Your task to perform on an android device: Open Youtube and go to "Your channel" Image 0: 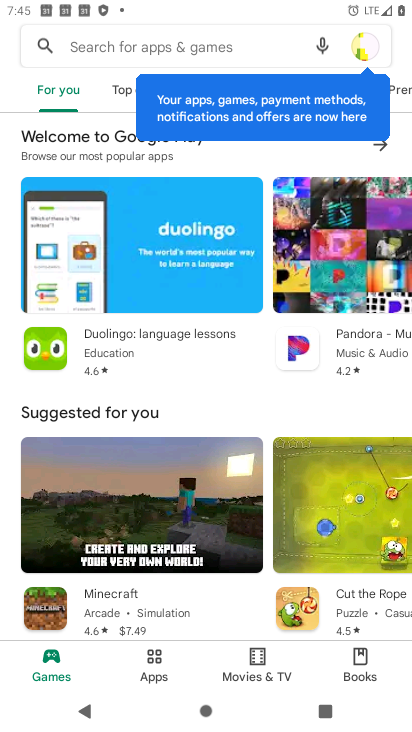
Step 0: press home button
Your task to perform on an android device: Open Youtube and go to "Your channel" Image 1: 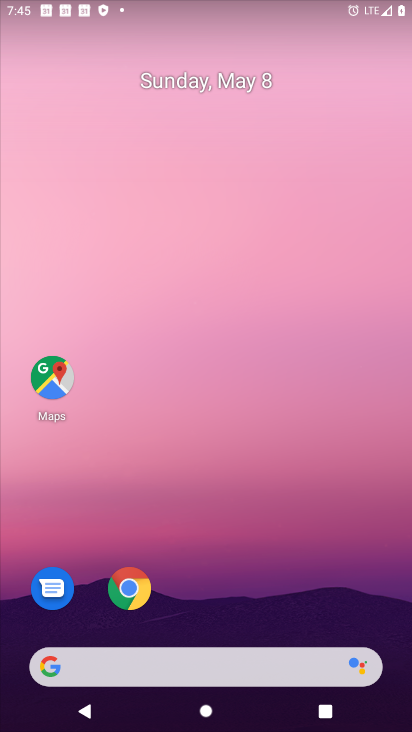
Step 1: drag from (185, 673) to (314, 111)
Your task to perform on an android device: Open Youtube and go to "Your channel" Image 2: 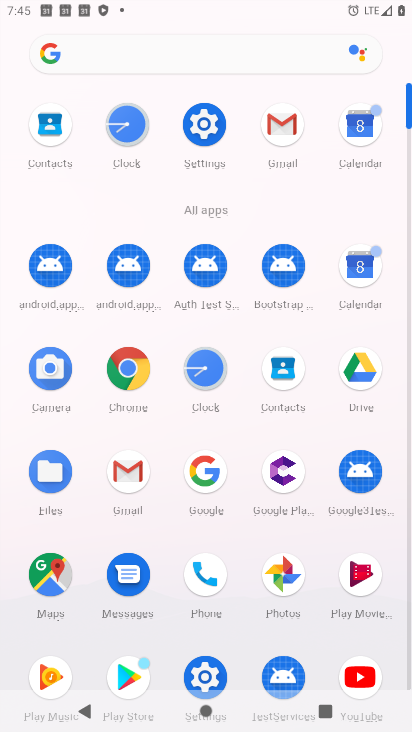
Step 2: click (372, 669)
Your task to perform on an android device: Open Youtube and go to "Your channel" Image 3: 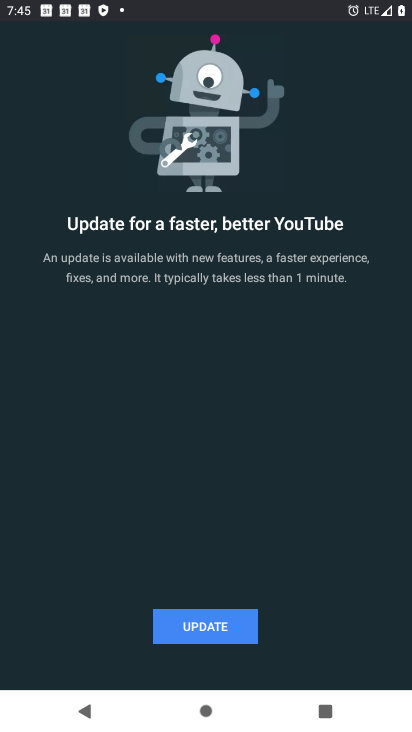
Step 3: click (221, 621)
Your task to perform on an android device: Open Youtube and go to "Your channel" Image 4: 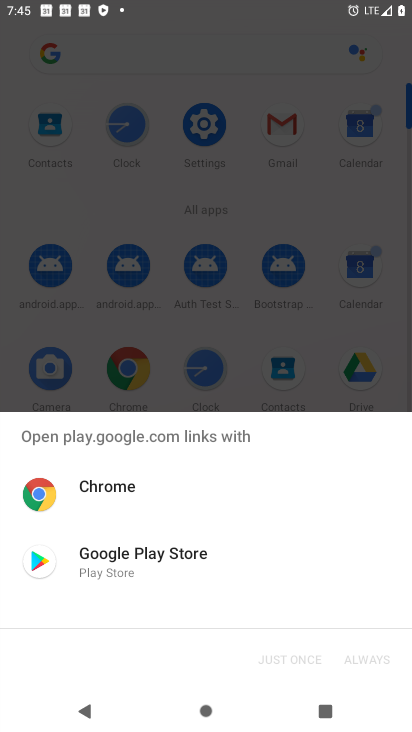
Step 4: click (140, 558)
Your task to perform on an android device: Open Youtube and go to "Your channel" Image 5: 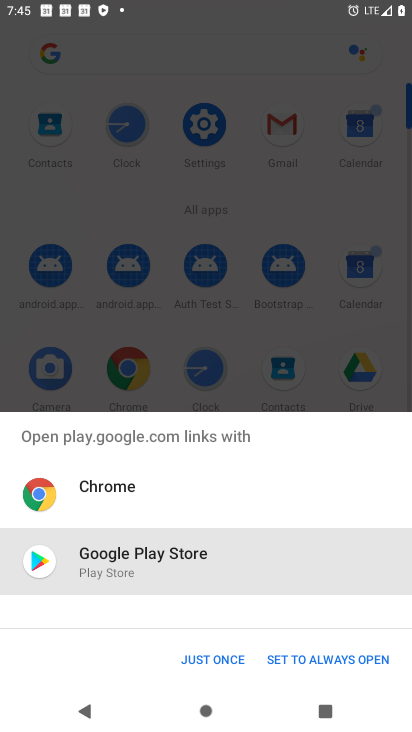
Step 5: click (200, 658)
Your task to perform on an android device: Open Youtube and go to "Your channel" Image 6: 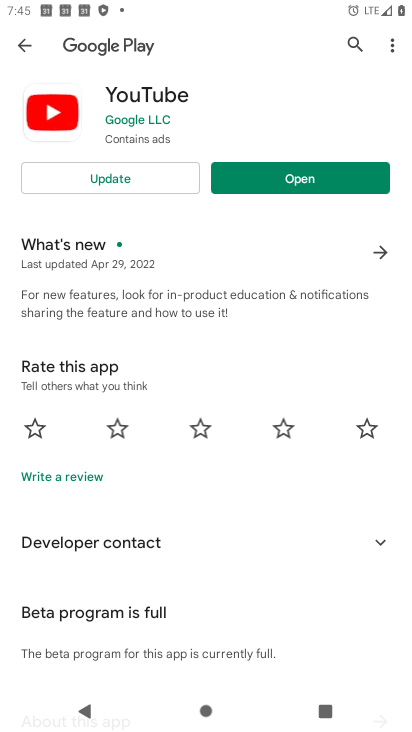
Step 6: click (144, 184)
Your task to perform on an android device: Open Youtube and go to "Your channel" Image 7: 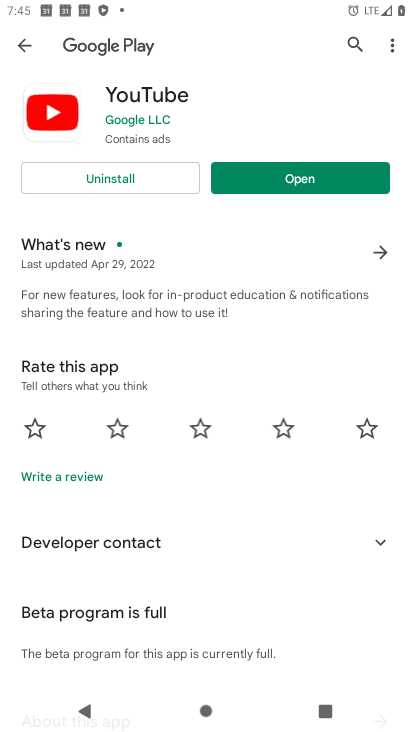
Step 7: click (295, 176)
Your task to perform on an android device: Open Youtube and go to "Your channel" Image 8: 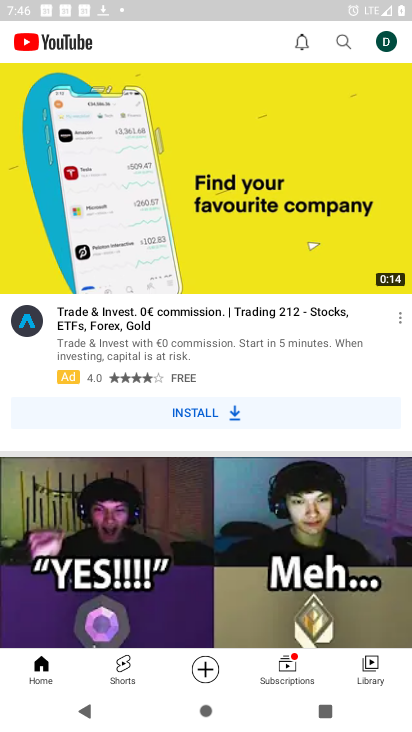
Step 8: click (383, 44)
Your task to perform on an android device: Open Youtube and go to "Your channel" Image 9: 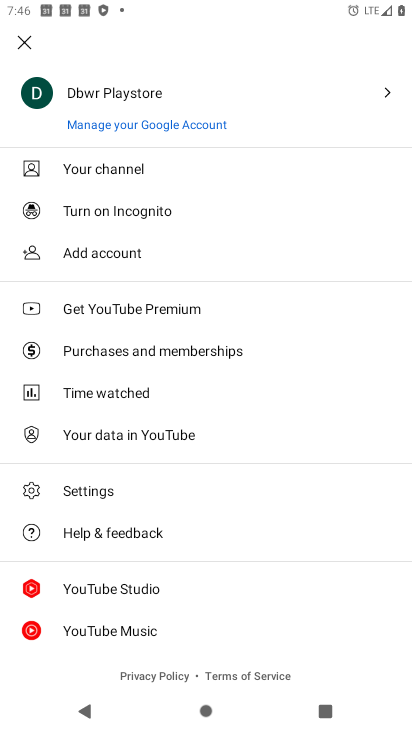
Step 9: click (138, 164)
Your task to perform on an android device: Open Youtube and go to "Your channel" Image 10: 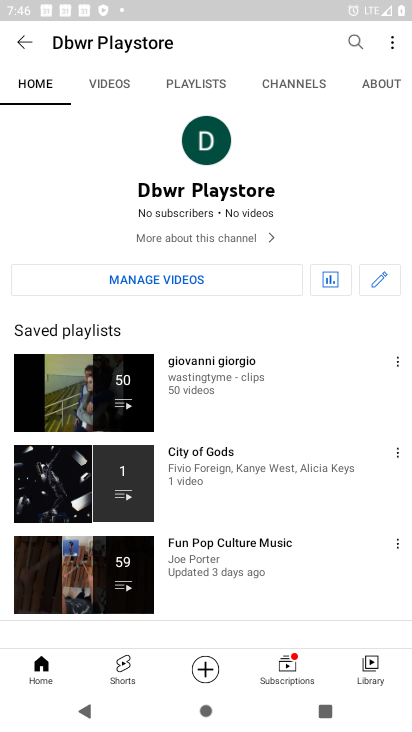
Step 10: task complete